Your task to perform on an android device: Go to Maps Image 0: 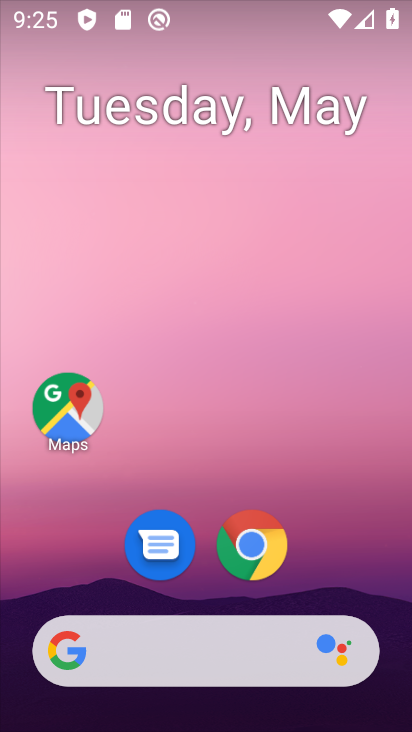
Step 0: click (65, 403)
Your task to perform on an android device: Go to Maps Image 1: 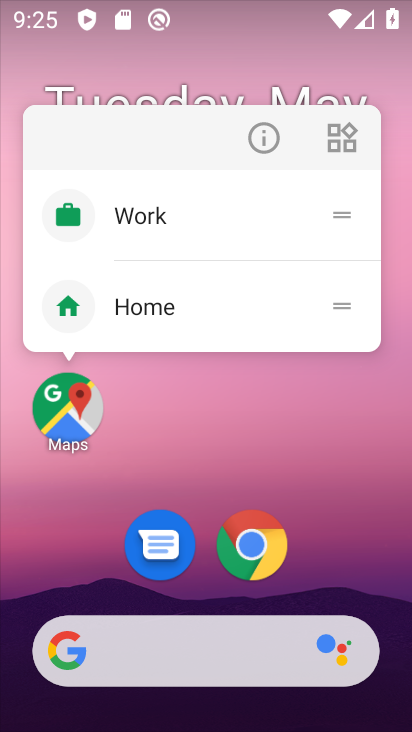
Step 1: click (56, 417)
Your task to perform on an android device: Go to Maps Image 2: 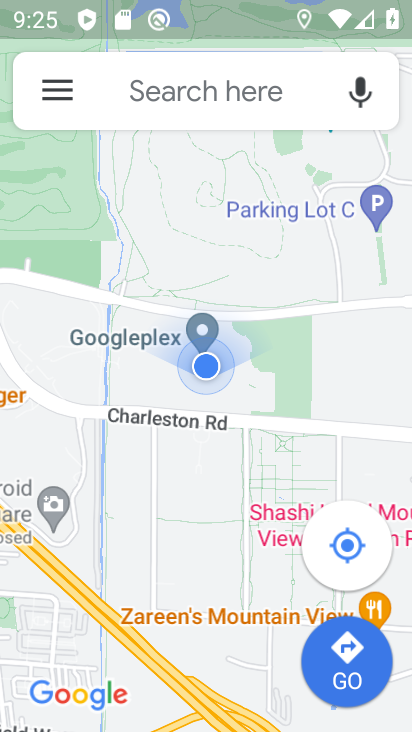
Step 2: task complete